Your task to perform on an android device: Open Chrome and go to settings Image 0: 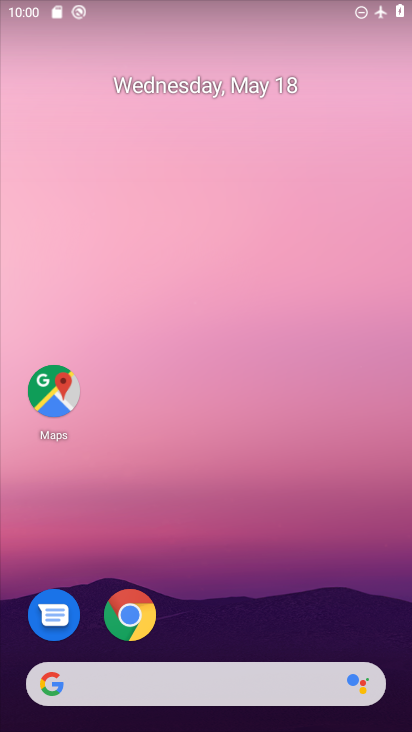
Step 0: click (137, 612)
Your task to perform on an android device: Open Chrome and go to settings Image 1: 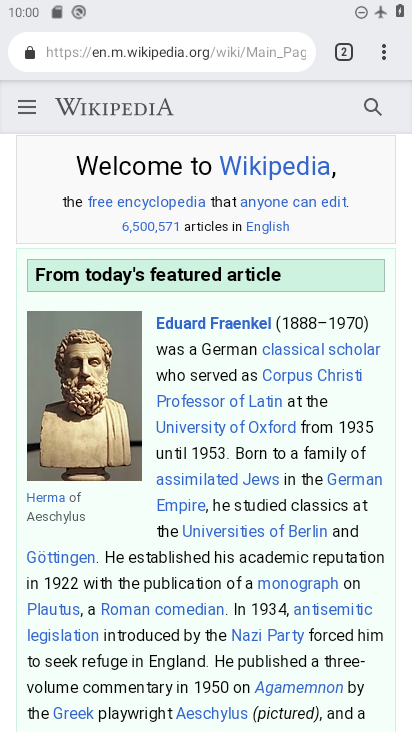
Step 1: click (378, 57)
Your task to perform on an android device: Open Chrome and go to settings Image 2: 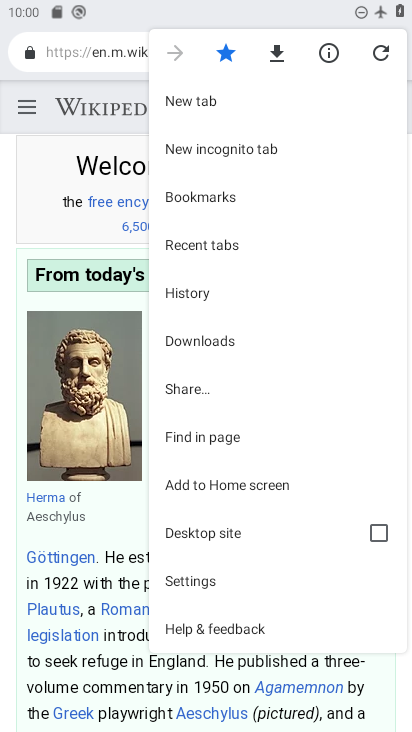
Step 2: click (273, 589)
Your task to perform on an android device: Open Chrome and go to settings Image 3: 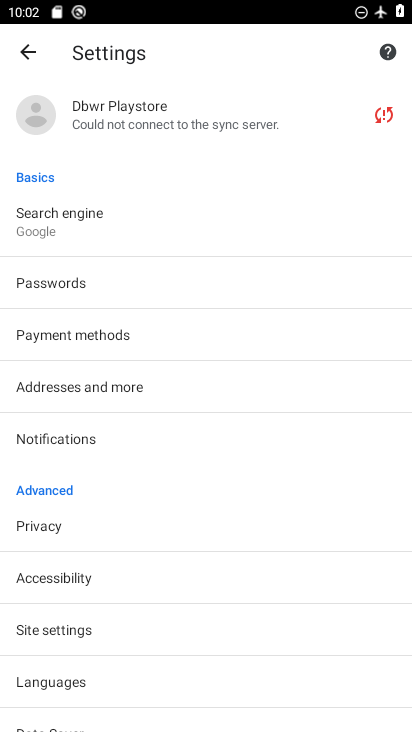
Step 3: task complete